Your task to perform on an android device: see tabs open on other devices in the chrome app Image 0: 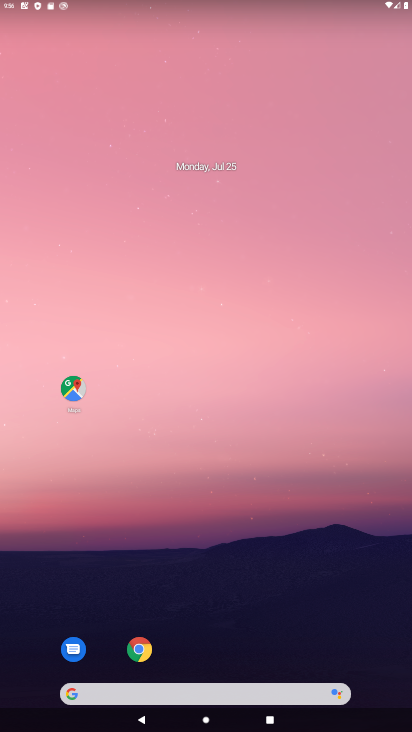
Step 0: drag from (226, 596) to (351, 82)
Your task to perform on an android device: see tabs open on other devices in the chrome app Image 1: 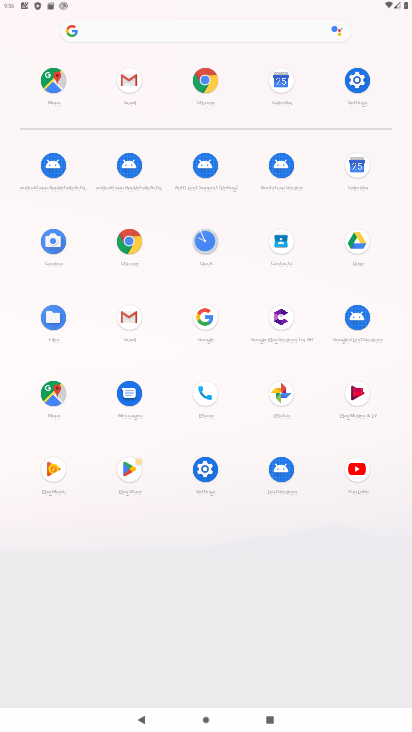
Step 1: click (199, 73)
Your task to perform on an android device: see tabs open on other devices in the chrome app Image 2: 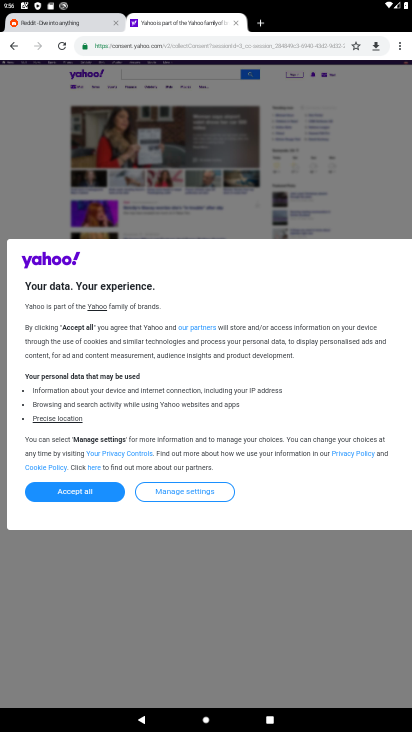
Step 2: task complete